Your task to perform on an android device: Check the weather Image 0: 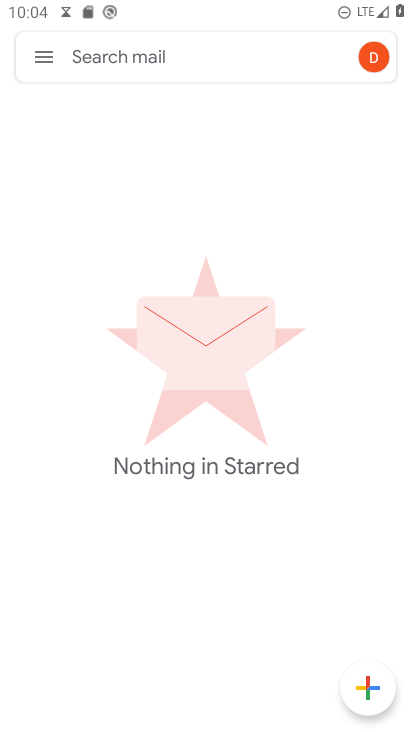
Step 0: press home button
Your task to perform on an android device: Check the weather Image 1: 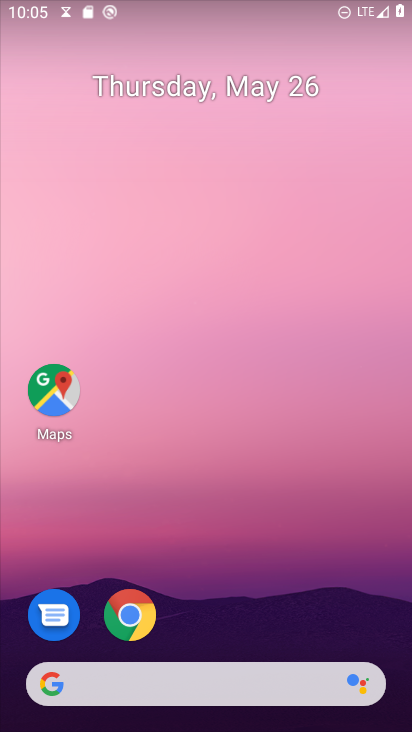
Step 1: click (133, 609)
Your task to perform on an android device: Check the weather Image 2: 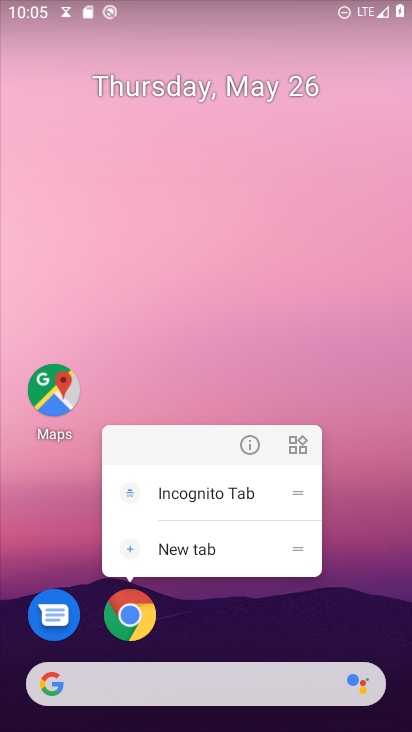
Step 2: click (133, 609)
Your task to perform on an android device: Check the weather Image 3: 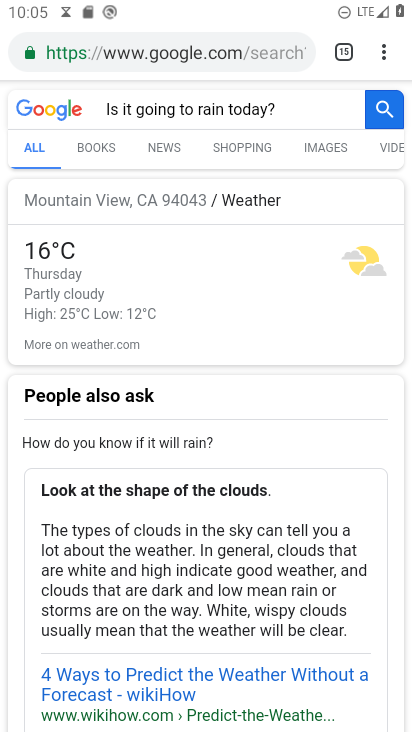
Step 3: click (378, 36)
Your task to perform on an android device: Check the weather Image 4: 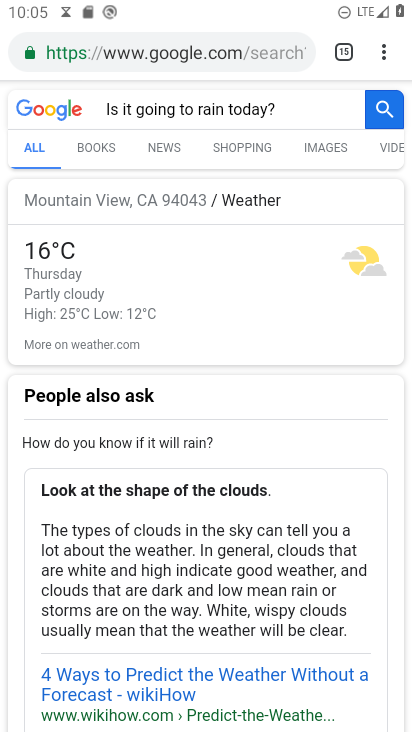
Step 4: click (380, 43)
Your task to perform on an android device: Check the weather Image 5: 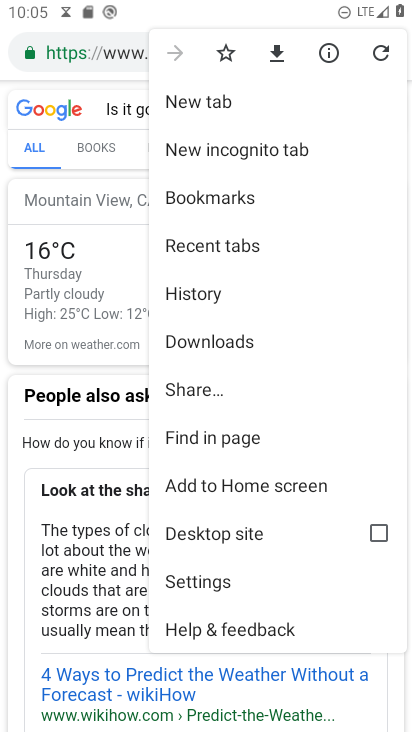
Step 5: click (201, 103)
Your task to perform on an android device: Check the weather Image 6: 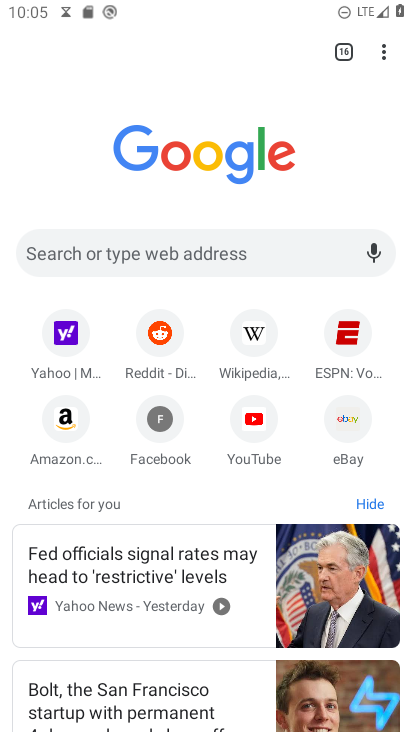
Step 6: click (142, 241)
Your task to perform on an android device: Check the weather Image 7: 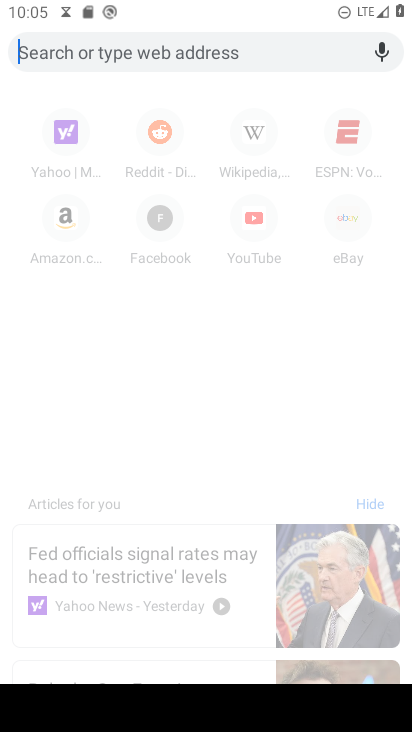
Step 7: type "Check the weather"
Your task to perform on an android device: Check the weather Image 8: 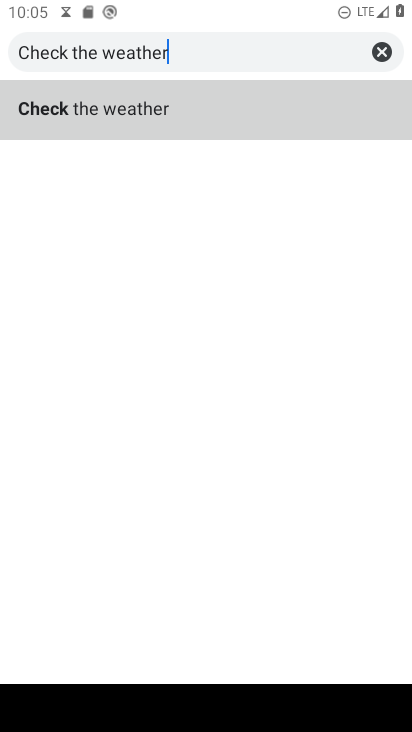
Step 8: click (172, 106)
Your task to perform on an android device: Check the weather Image 9: 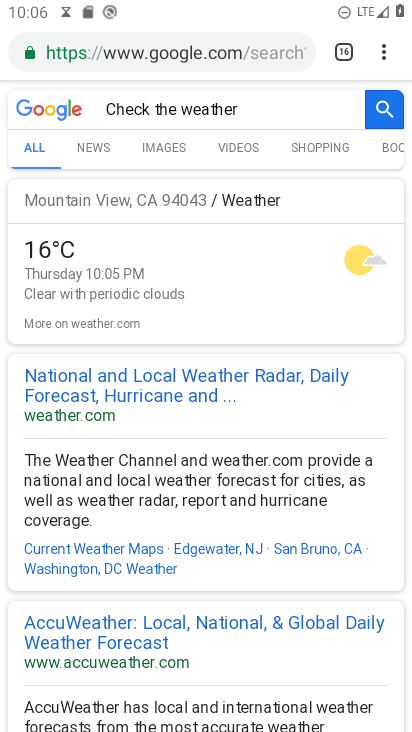
Step 9: task complete